Your task to perform on an android device: Open CNN.com Image 0: 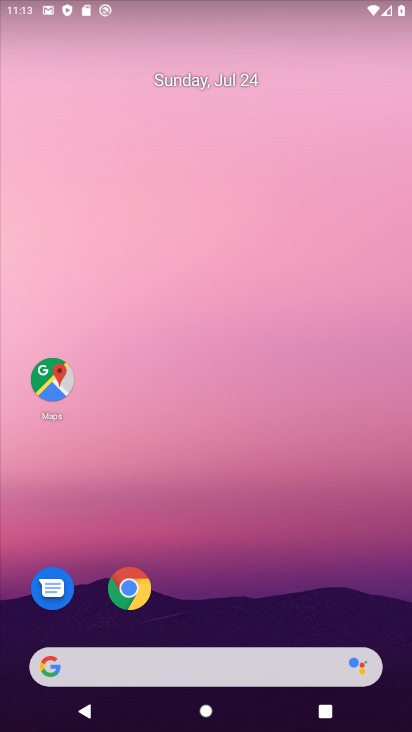
Step 0: click (138, 585)
Your task to perform on an android device: Open CNN.com Image 1: 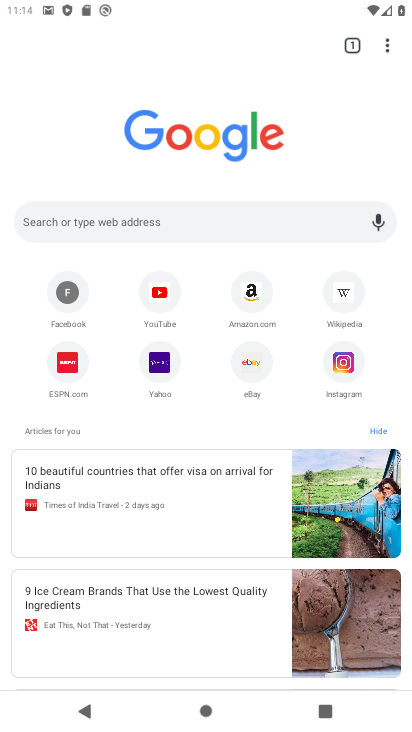
Step 1: click (212, 230)
Your task to perform on an android device: Open CNN.com Image 2: 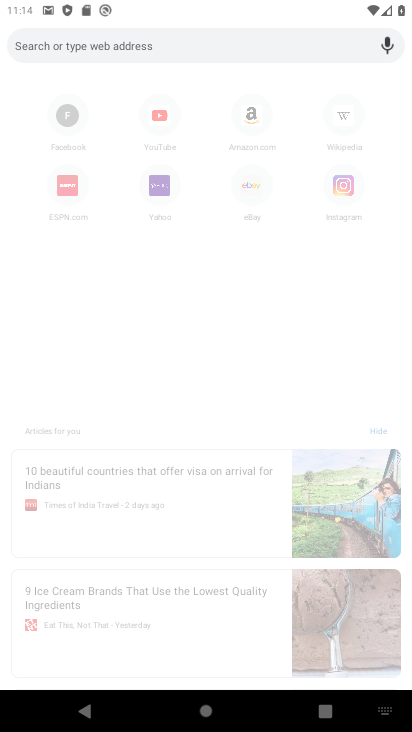
Step 2: type "cnn"
Your task to perform on an android device: Open CNN.com Image 3: 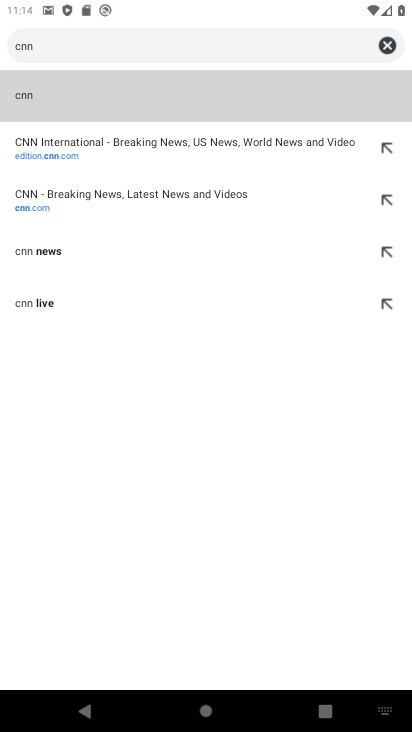
Step 3: click (128, 152)
Your task to perform on an android device: Open CNN.com Image 4: 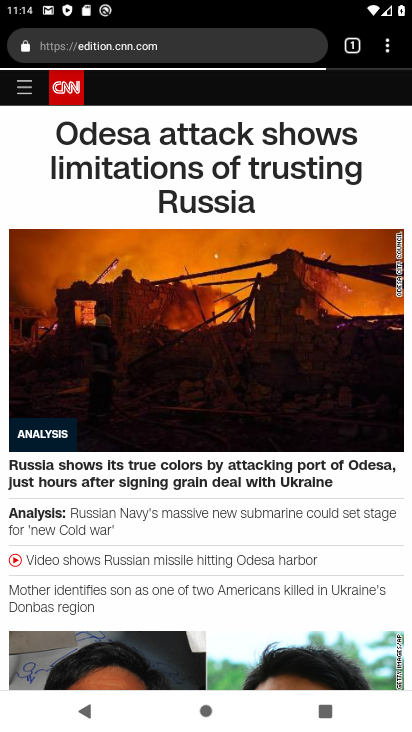
Step 4: task complete